Your task to perform on an android device: add a contact Image 0: 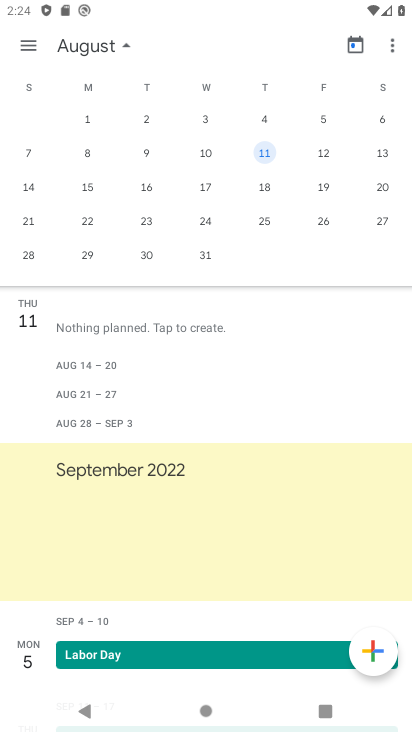
Step 0: press home button
Your task to perform on an android device: add a contact Image 1: 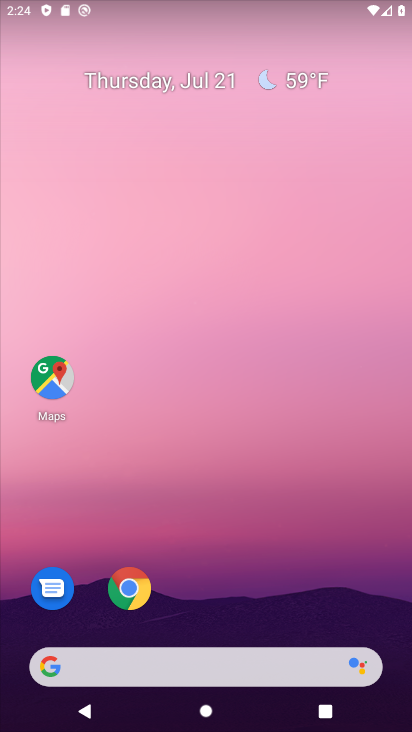
Step 1: drag from (383, 501) to (353, 138)
Your task to perform on an android device: add a contact Image 2: 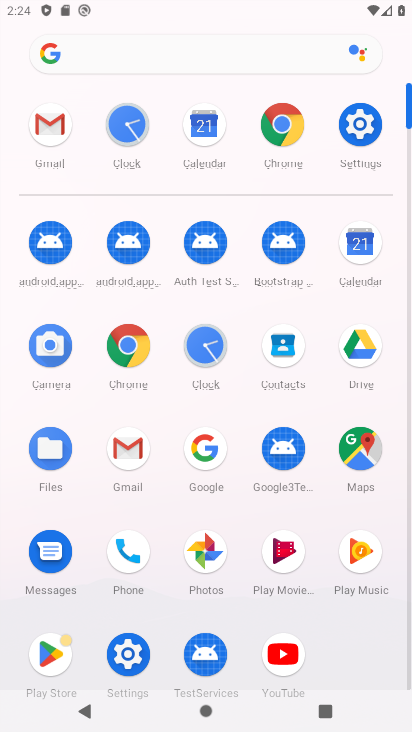
Step 2: click (280, 353)
Your task to perform on an android device: add a contact Image 3: 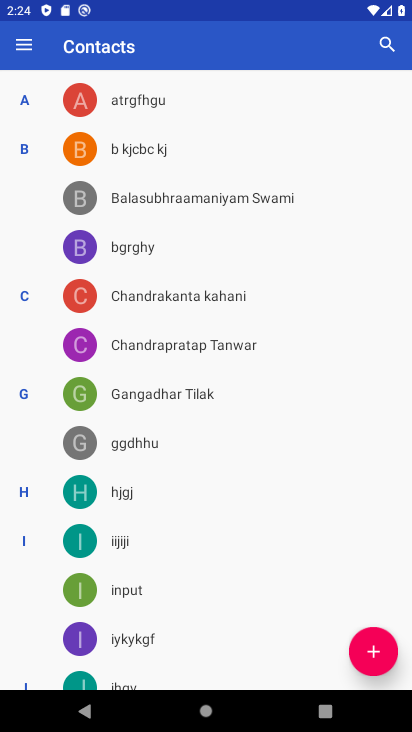
Step 3: click (366, 658)
Your task to perform on an android device: add a contact Image 4: 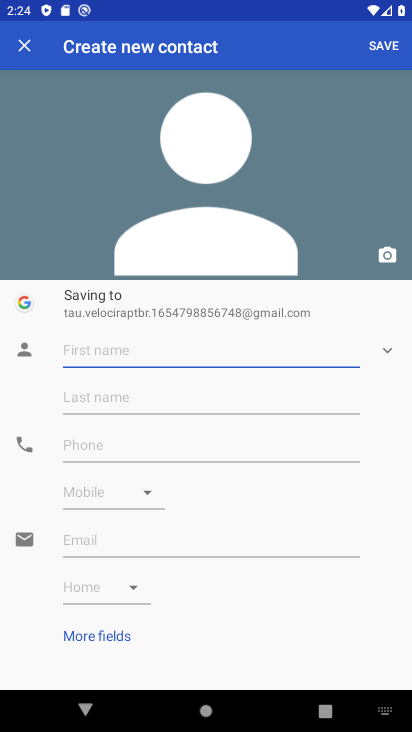
Step 4: type "hdvgdhjad"
Your task to perform on an android device: add a contact Image 5: 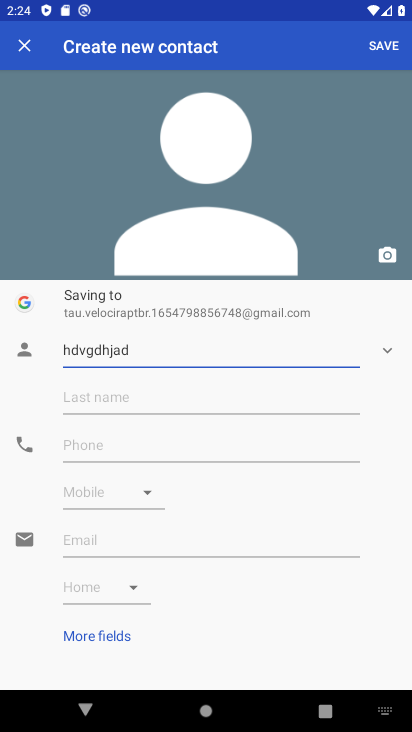
Step 5: click (170, 390)
Your task to perform on an android device: add a contact Image 6: 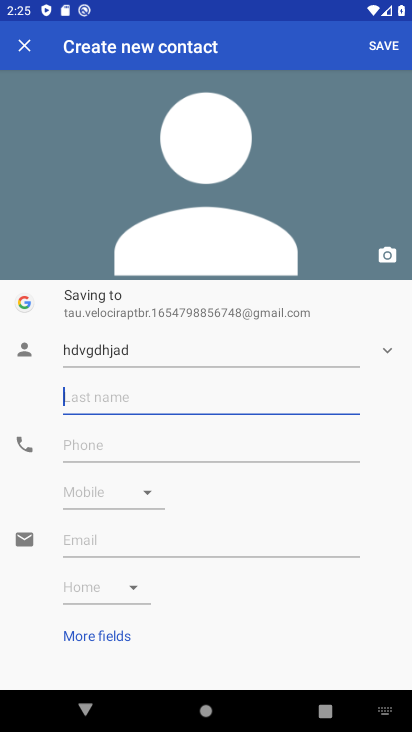
Step 6: type "dgdfagsdfhdsh"
Your task to perform on an android device: add a contact Image 7: 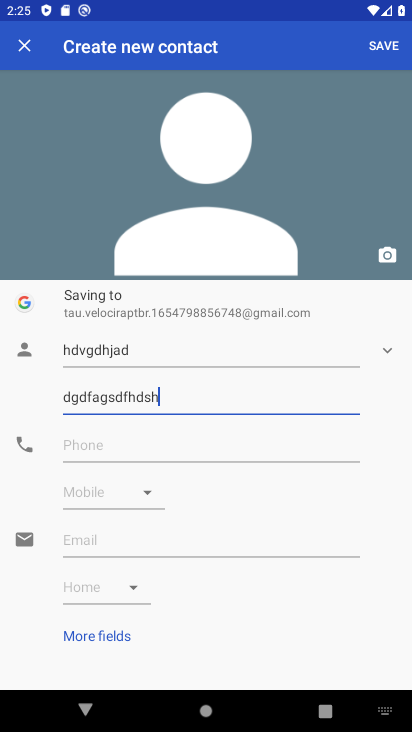
Step 7: click (70, 441)
Your task to perform on an android device: add a contact Image 8: 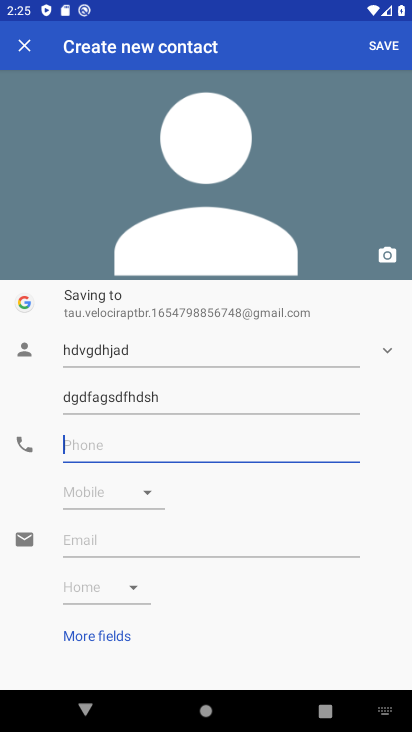
Step 8: type "432646566545656"
Your task to perform on an android device: add a contact Image 9: 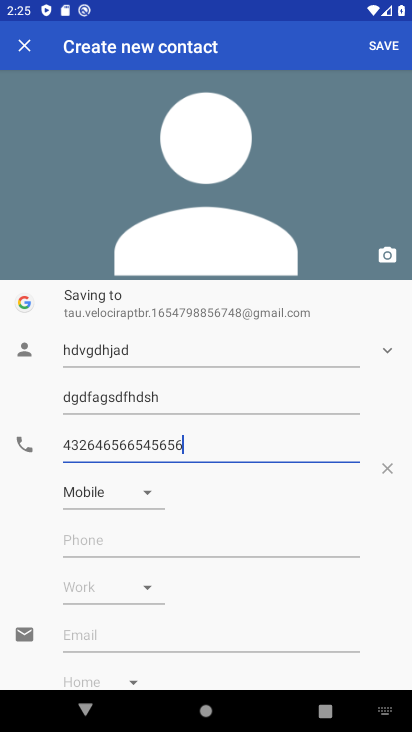
Step 9: click (386, 40)
Your task to perform on an android device: add a contact Image 10: 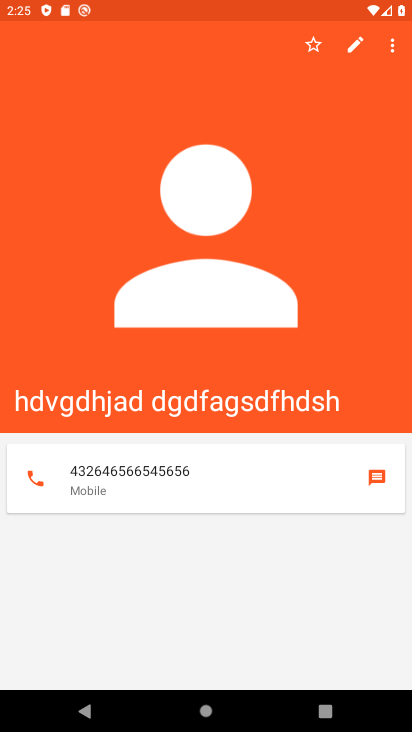
Step 10: task complete